Your task to perform on an android device: open app "Upside-Cash back on gas & food" (install if not already installed), go to login, and select forgot password Image 0: 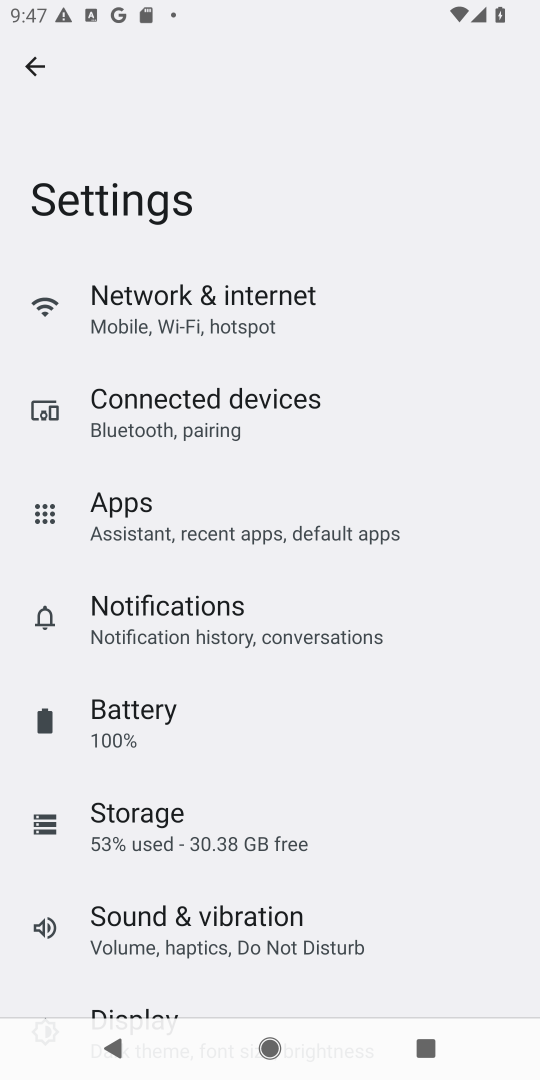
Step 0: press home button
Your task to perform on an android device: open app "Upside-Cash back on gas & food" (install if not already installed), go to login, and select forgot password Image 1: 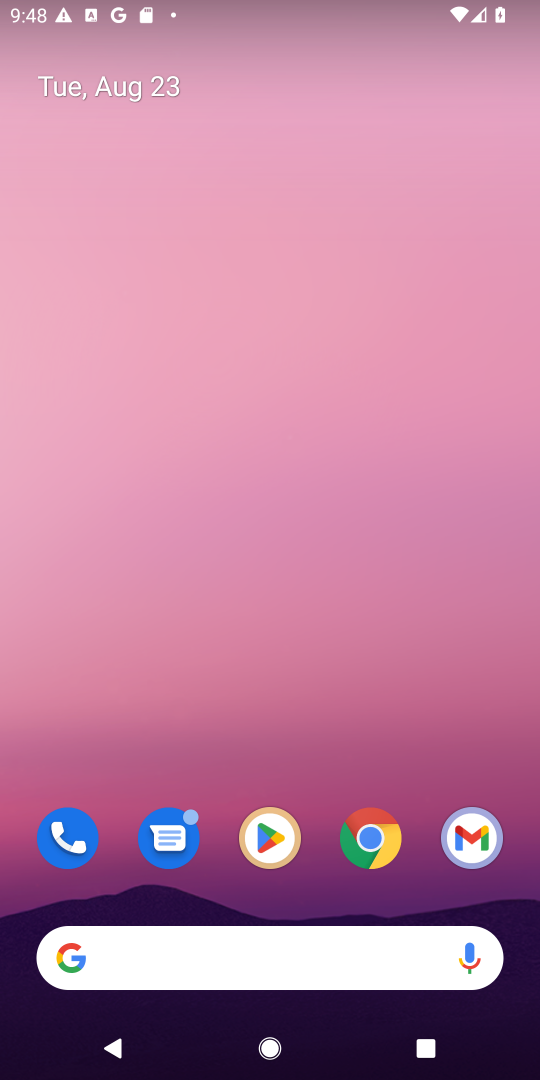
Step 1: click (266, 826)
Your task to perform on an android device: open app "Upside-Cash back on gas & food" (install if not already installed), go to login, and select forgot password Image 2: 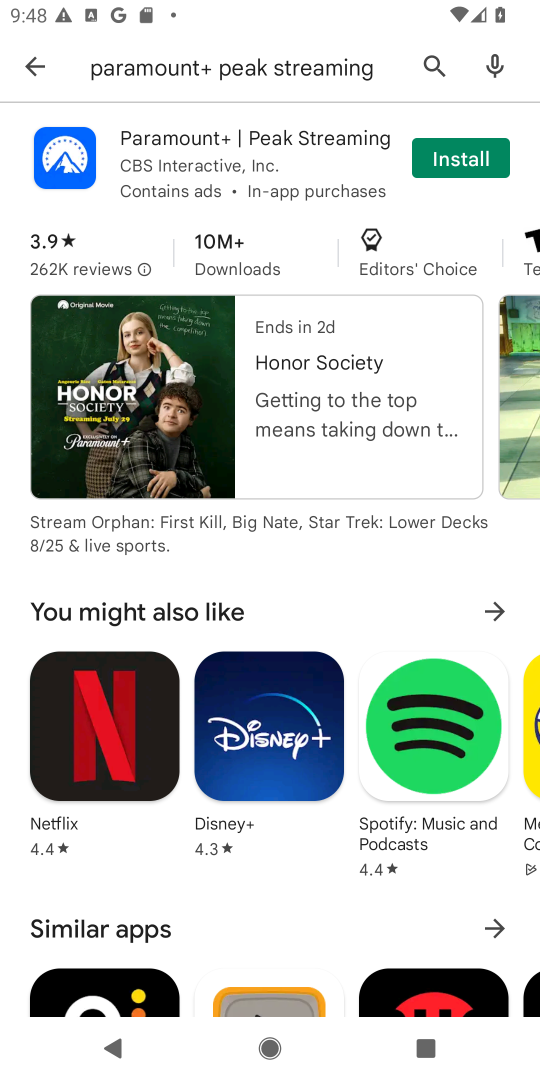
Step 2: click (423, 60)
Your task to perform on an android device: open app "Upside-Cash back on gas & food" (install if not already installed), go to login, and select forgot password Image 3: 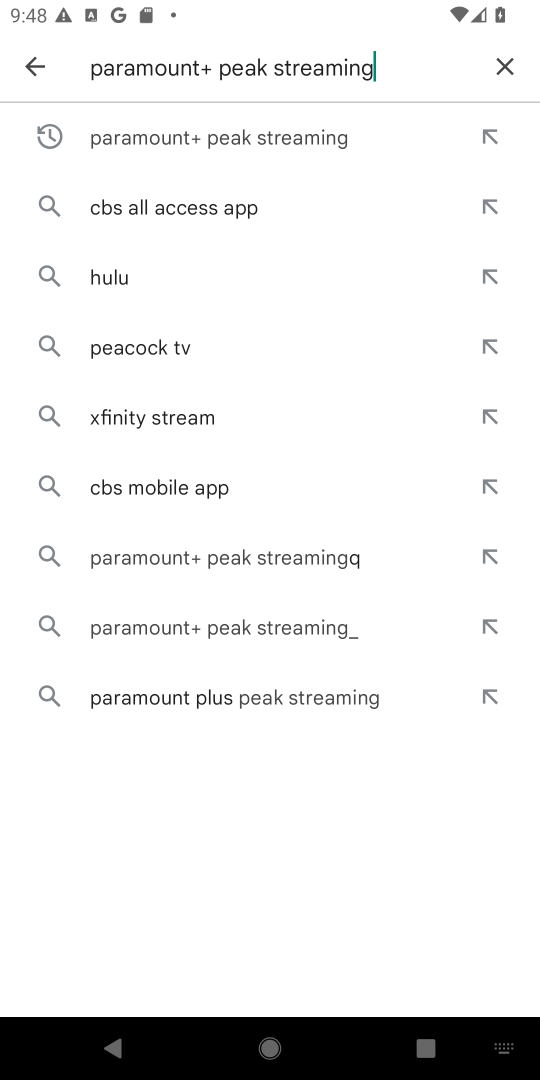
Step 3: click (499, 75)
Your task to perform on an android device: open app "Upside-Cash back on gas & food" (install if not already installed), go to login, and select forgot password Image 4: 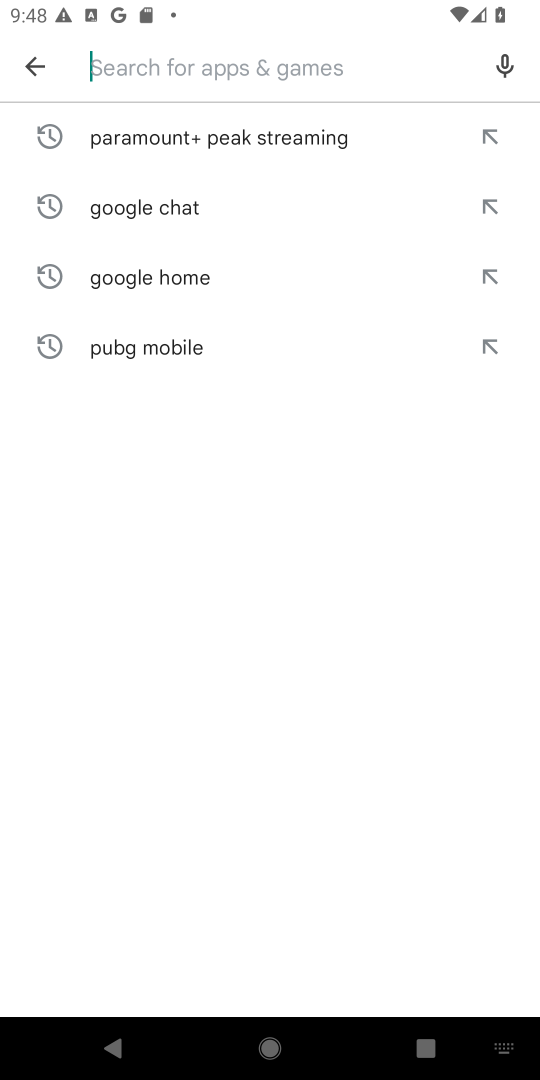
Step 4: type "Upside-Cash back on gas & food"
Your task to perform on an android device: open app "Upside-Cash back on gas & food" (install if not already installed), go to login, and select forgot password Image 5: 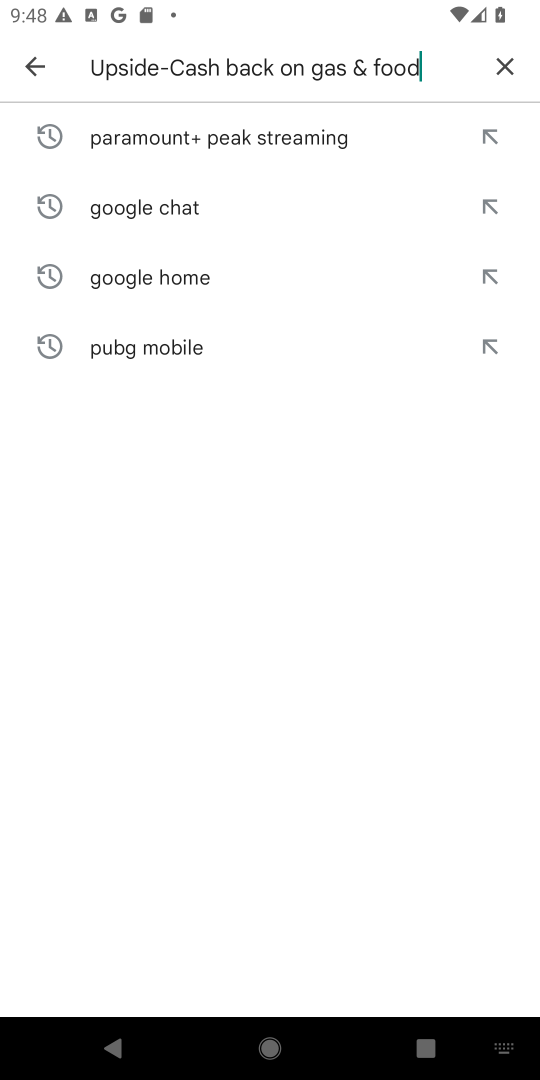
Step 5: type ""
Your task to perform on an android device: open app "Upside-Cash back on gas & food" (install if not already installed), go to login, and select forgot password Image 6: 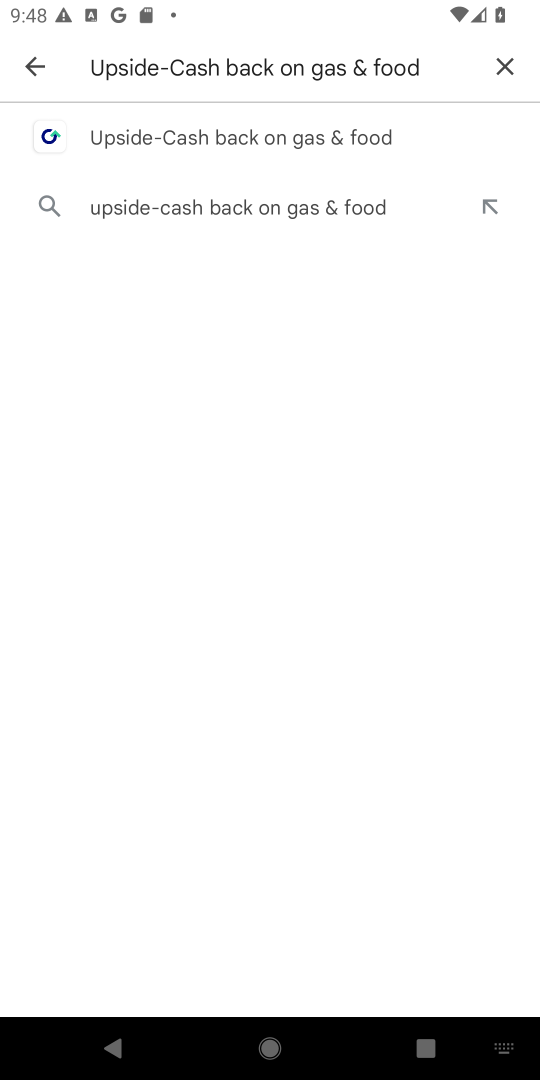
Step 6: click (226, 145)
Your task to perform on an android device: open app "Upside-Cash back on gas & food" (install if not already installed), go to login, and select forgot password Image 7: 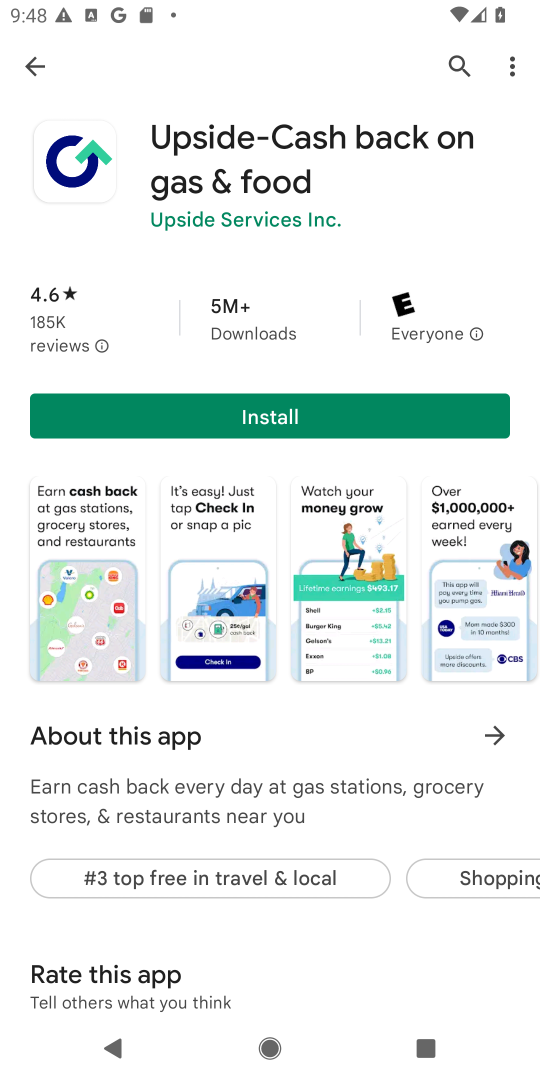
Step 7: click (350, 424)
Your task to perform on an android device: open app "Upside-Cash back on gas & food" (install if not already installed), go to login, and select forgot password Image 8: 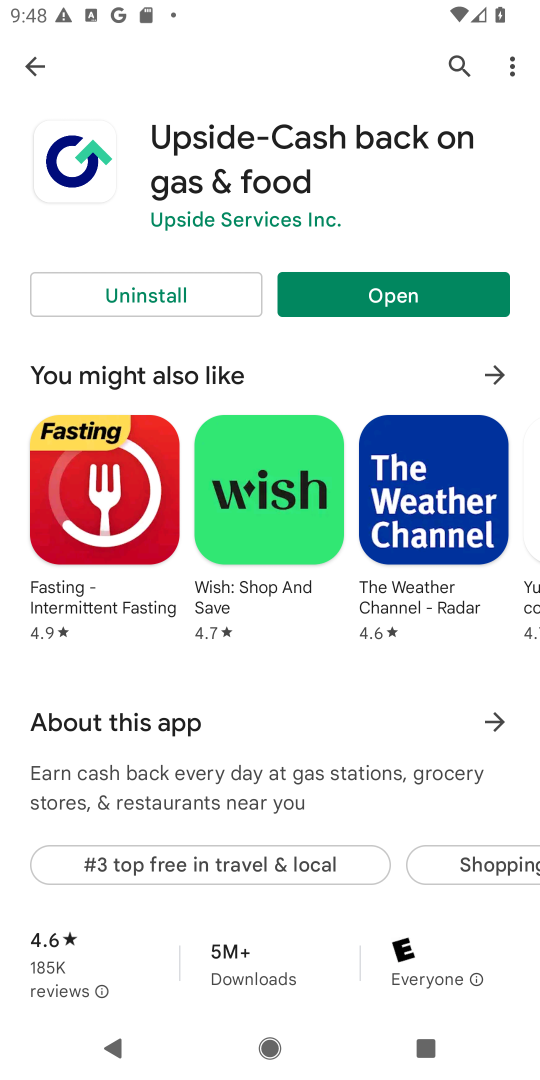
Step 8: click (378, 308)
Your task to perform on an android device: open app "Upside-Cash back on gas & food" (install if not already installed), go to login, and select forgot password Image 9: 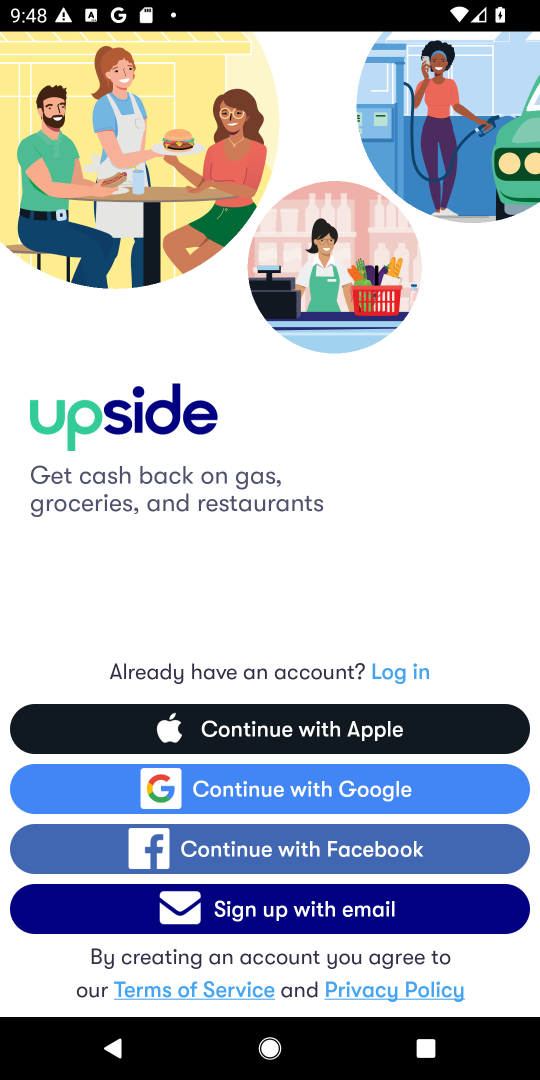
Step 9: task complete